Your task to perform on an android device: turn on improve location accuracy Image 0: 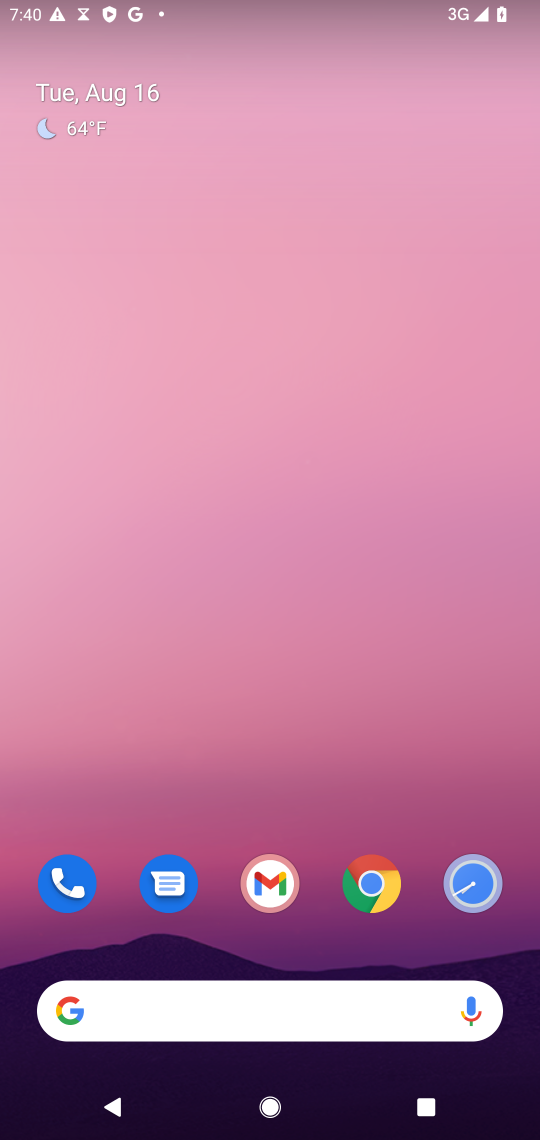
Step 0: drag from (191, 1029) to (324, 129)
Your task to perform on an android device: turn on improve location accuracy Image 1: 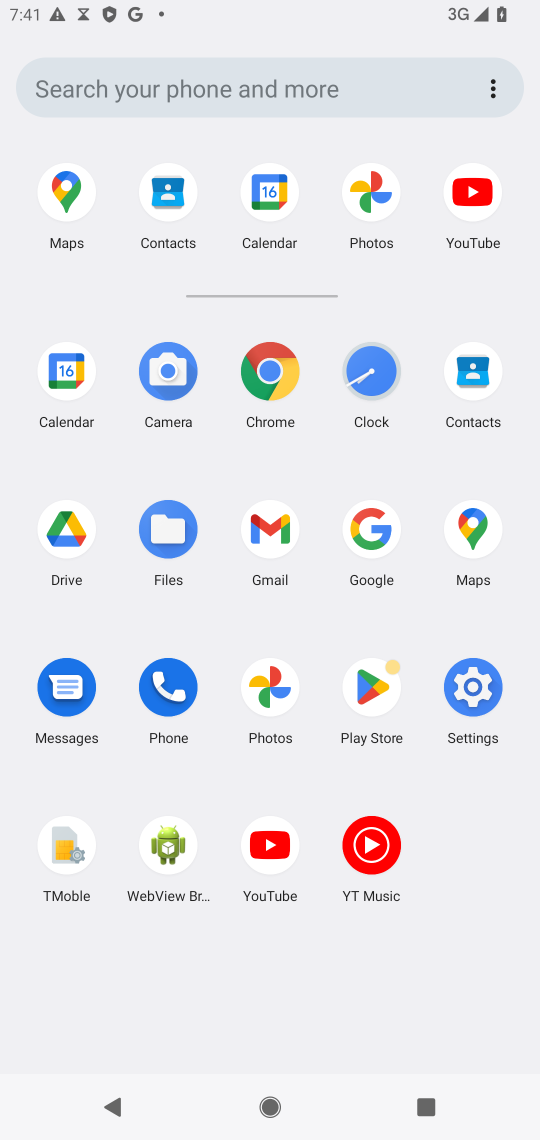
Step 1: click (471, 688)
Your task to perform on an android device: turn on improve location accuracy Image 2: 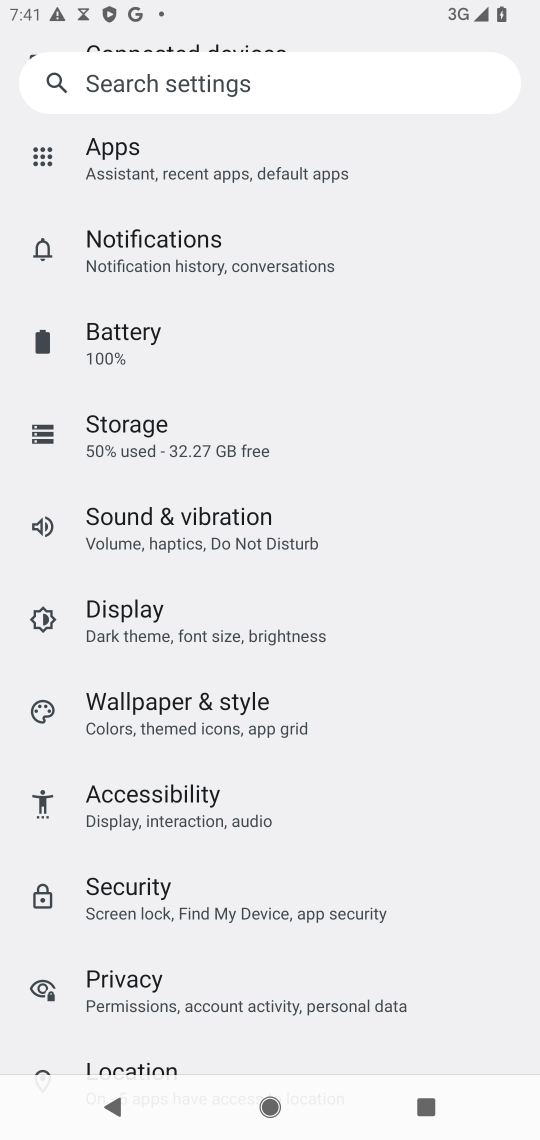
Step 2: drag from (203, 944) to (407, 632)
Your task to perform on an android device: turn on improve location accuracy Image 3: 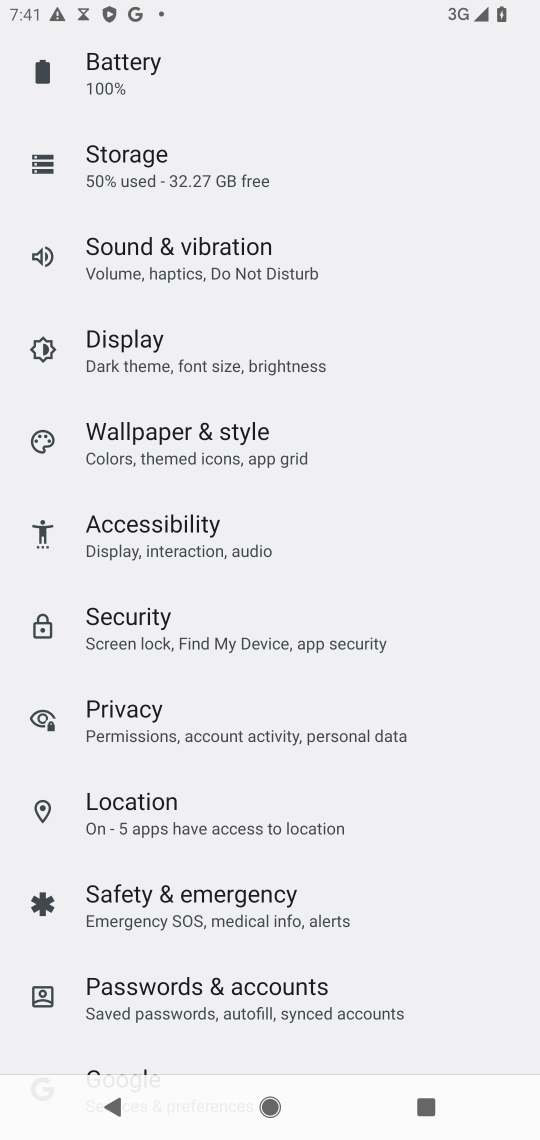
Step 3: click (170, 819)
Your task to perform on an android device: turn on improve location accuracy Image 4: 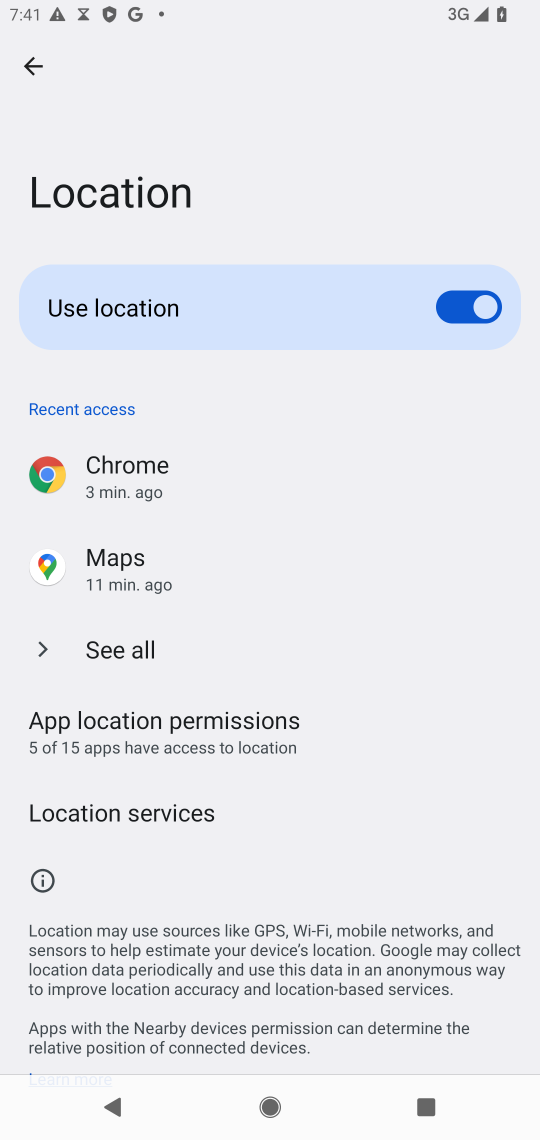
Step 4: click (153, 812)
Your task to perform on an android device: turn on improve location accuracy Image 5: 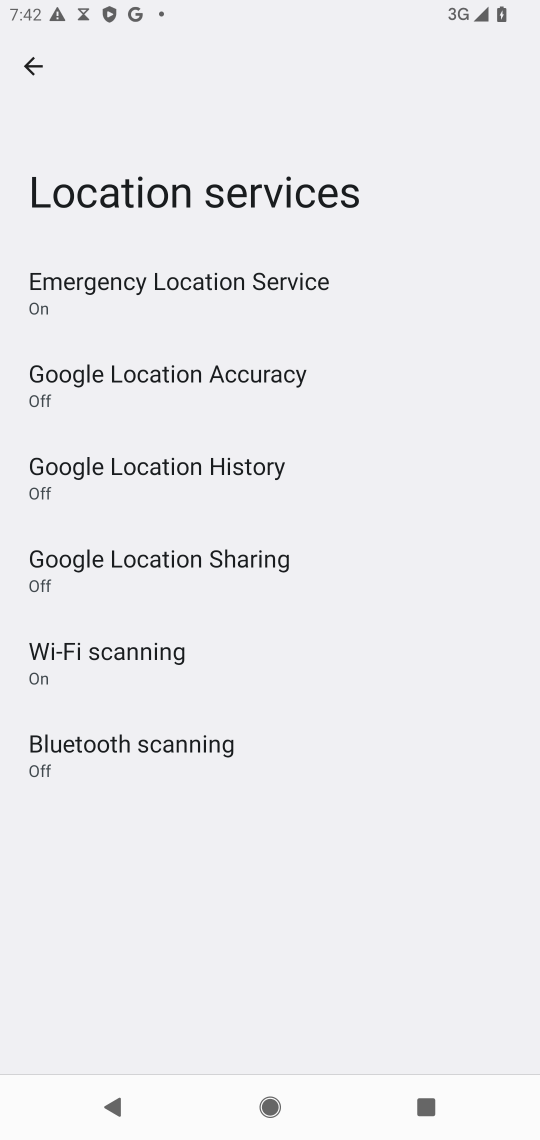
Step 5: click (230, 377)
Your task to perform on an android device: turn on improve location accuracy Image 6: 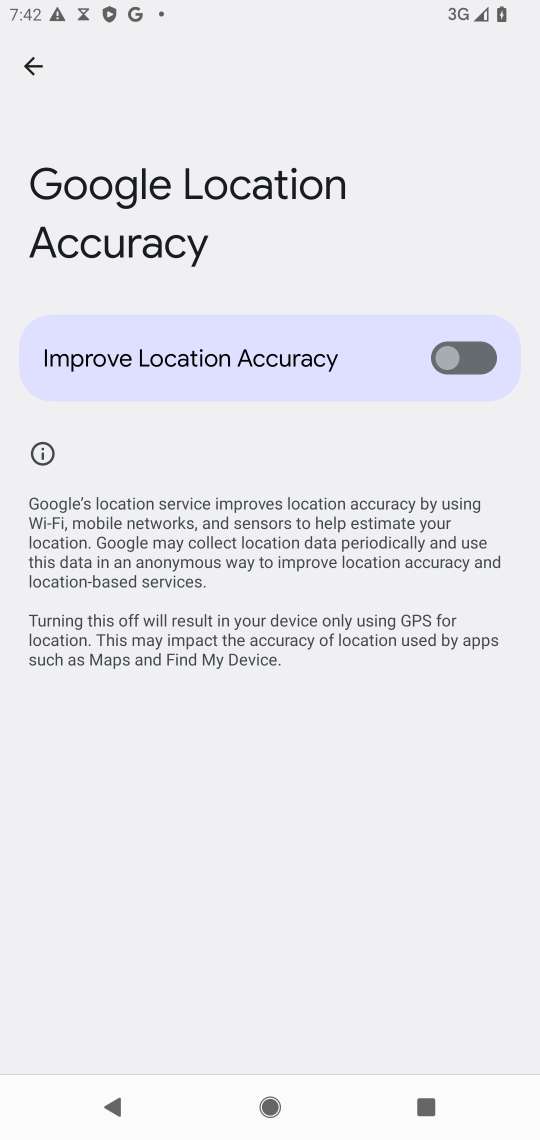
Step 6: click (455, 366)
Your task to perform on an android device: turn on improve location accuracy Image 7: 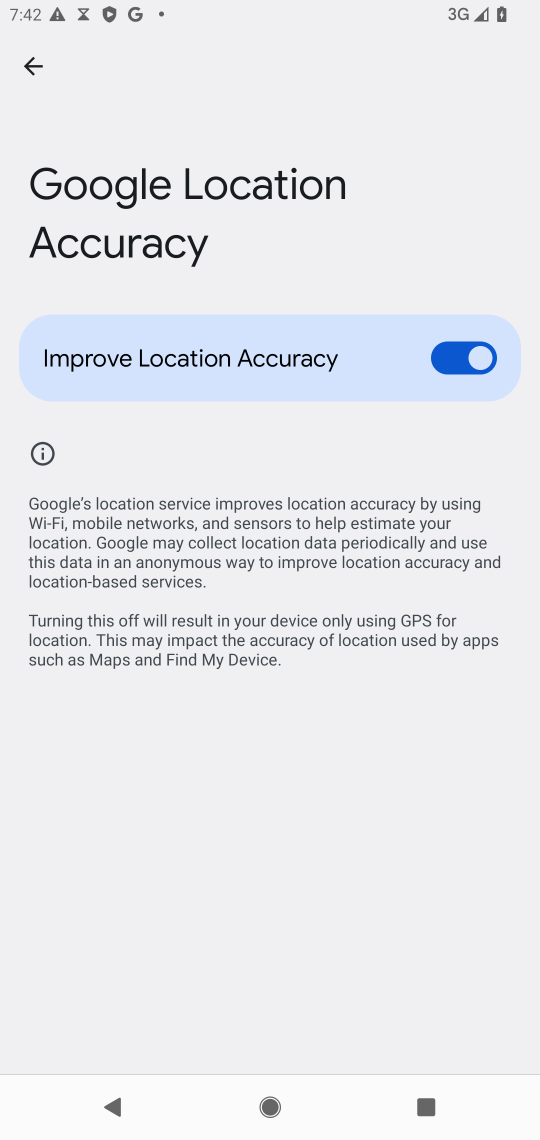
Step 7: task complete